Your task to perform on an android device: set the stopwatch Image 0: 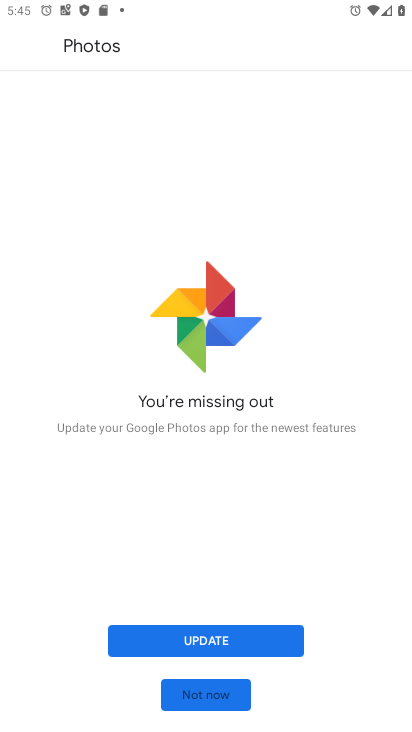
Step 0: press home button
Your task to perform on an android device: set the stopwatch Image 1: 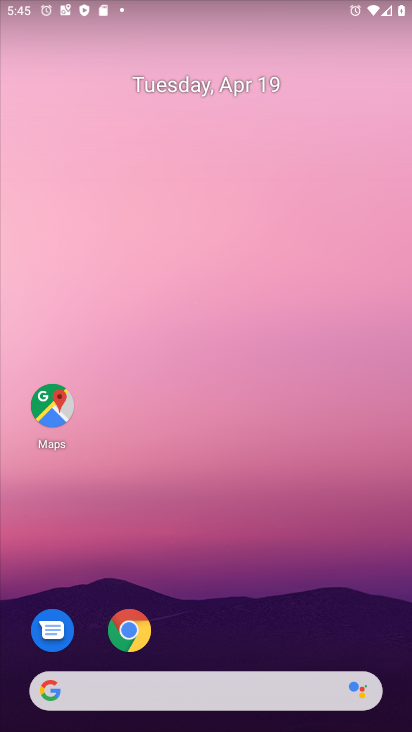
Step 1: drag from (333, 595) to (263, 60)
Your task to perform on an android device: set the stopwatch Image 2: 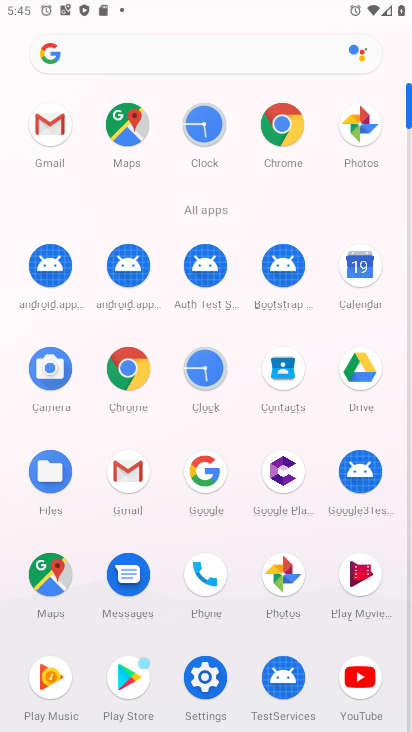
Step 2: click (189, 376)
Your task to perform on an android device: set the stopwatch Image 3: 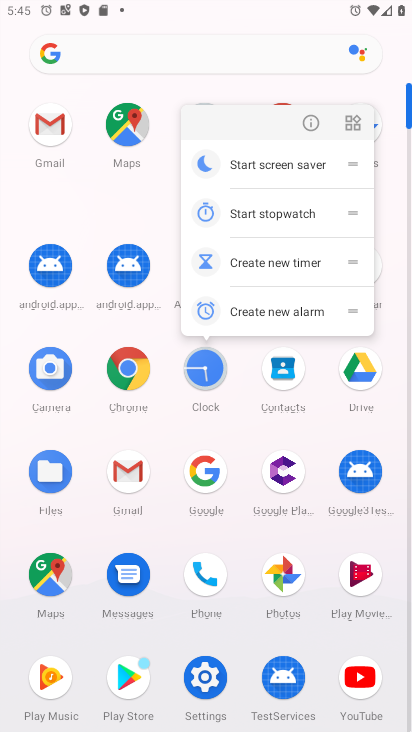
Step 3: click (189, 376)
Your task to perform on an android device: set the stopwatch Image 4: 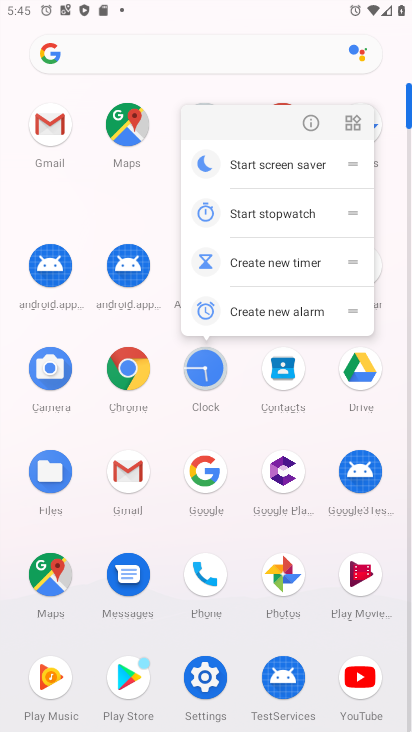
Step 4: click (189, 376)
Your task to perform on an android device: set the stopwatch Image 5: 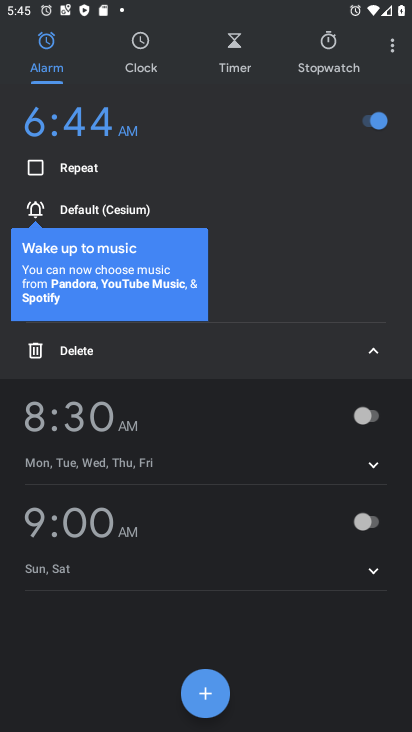
Step 5: click (311, 37)
Your task to perform on an android device: set the stopwatch Image 6: 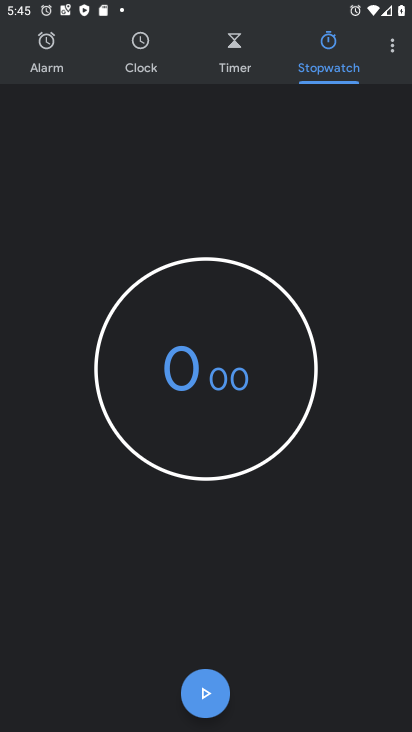
Step 6: task complete